Your task to perform on an android device: clear all cookies in the chrome app Image 0: 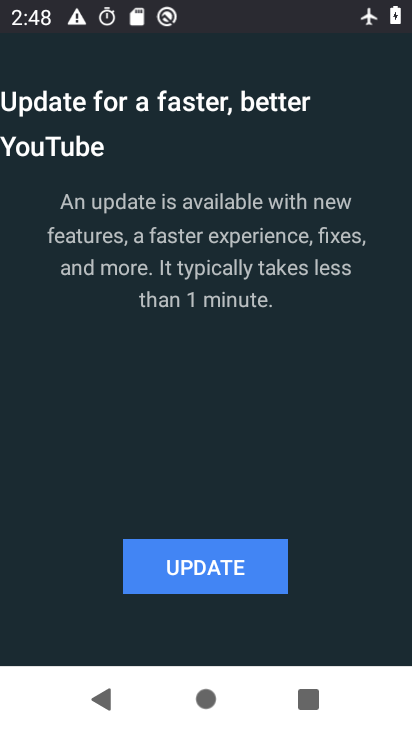
Step 0: press home button
Your task to perform on an android device: clear all cookies in the chrome app Image 1: 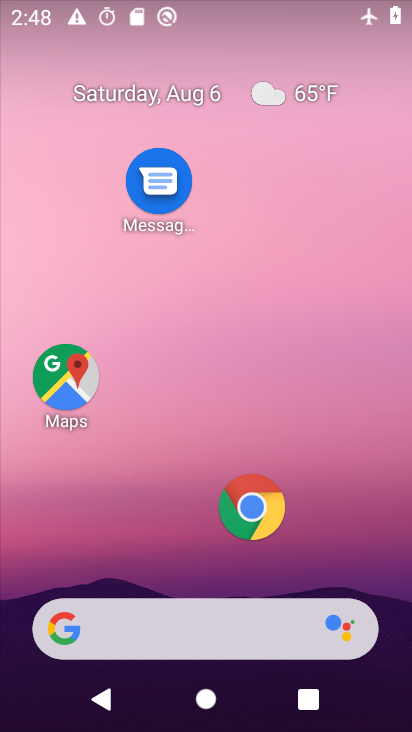
Step 1: click (248, 499)
Your task to perform on an android device: clear all cookies in the chrome app Image 2: 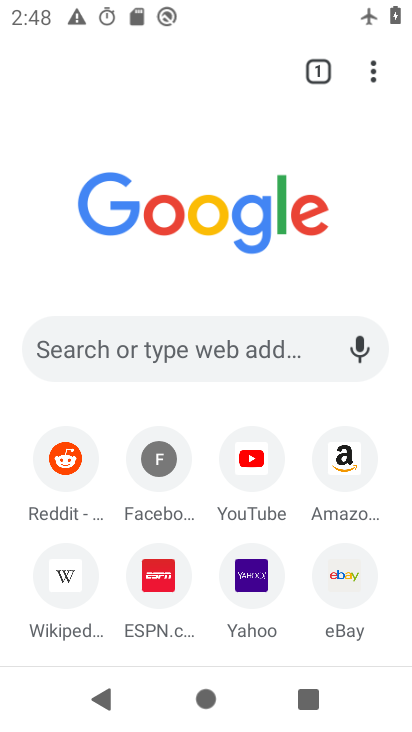
Step 2: click (367, 60)
Your task to perform on an android device: clear all cookies in the chrome app Image 3: 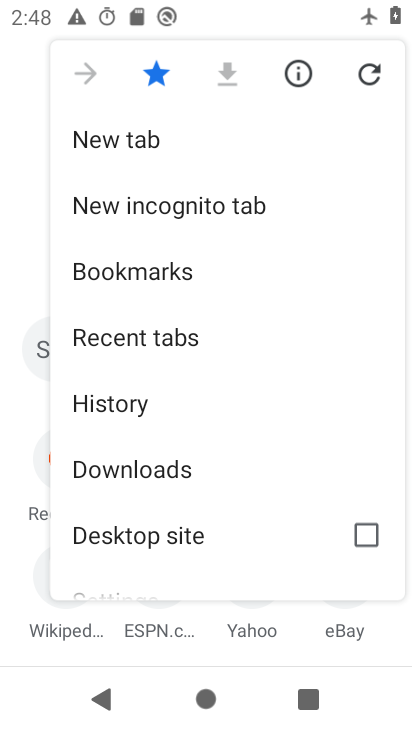
Step 3: click (127, 422)
Your task to perform on an android device: clear all cookies in the chrome app Image 4: 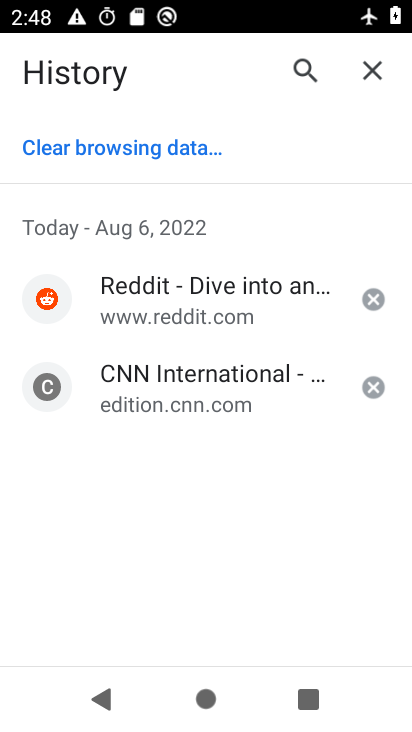
Step 4: click (117, 144)
Your task to perform on an android device: clear all cookies in the chrome app Image 5: 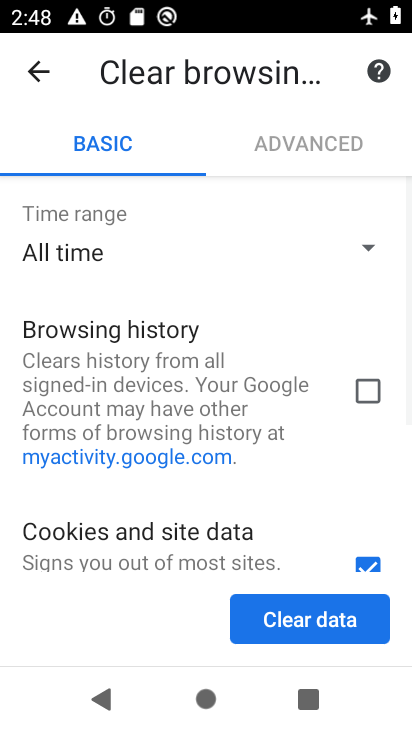
Step 5: drag from (199, 358) to (214, 228)
Your task to perform on an android device: clear all cookies in the chrome app Image 6: 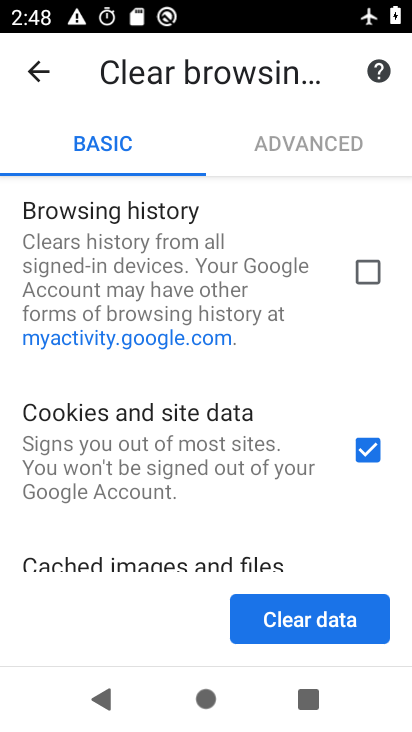
Step 6: drag from (238, 509) to (260, 203)
Your task to perform on an android device: clear all cookies in the chrome app Image 7: 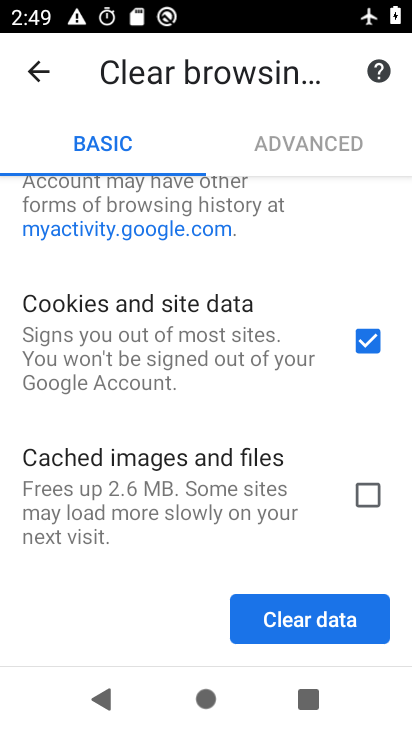
Step 7: click (313, 632)
Your task to perform on an android device: clear all cookies in the chrome app Image 8: 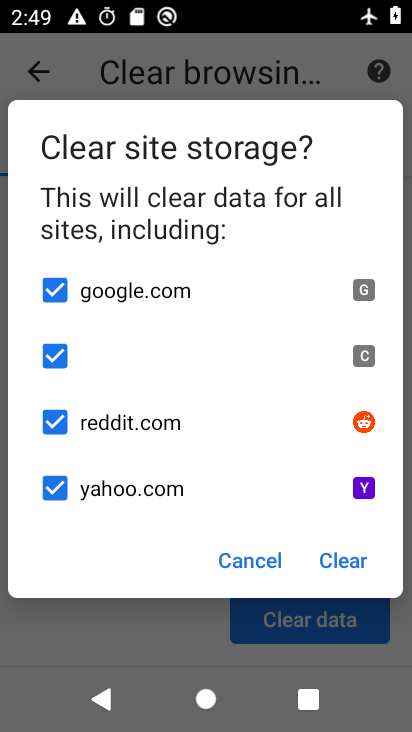
Step 8: click (341, 560)
Your task to perform on an android device: clear all cookies in the chrome app Image 9: 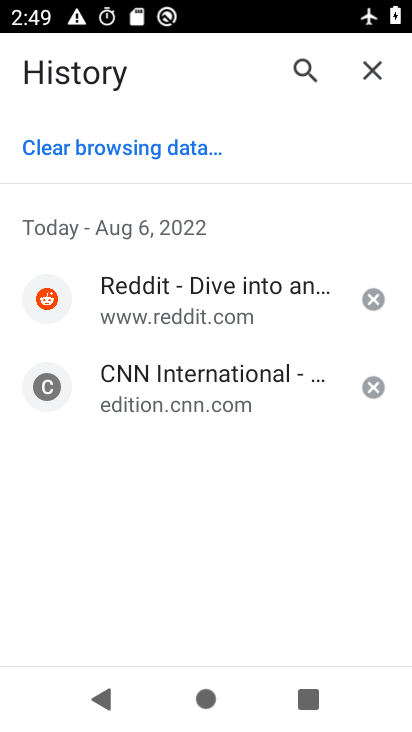
Step 9: task complete